Your task to perform on an android device: Search for vegetarian restaurants on Maps Image 0: 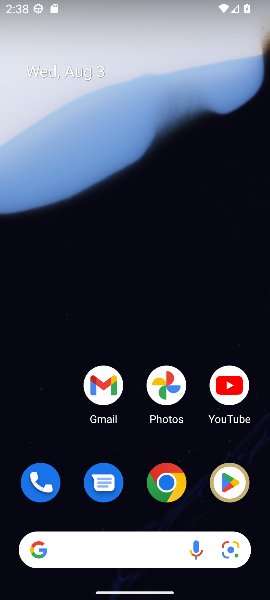
Step 0: drag from (112, 547) to (158, 32)
Your task to perform on an android device: Search for vegetarian restaurants on Maps Image 1: 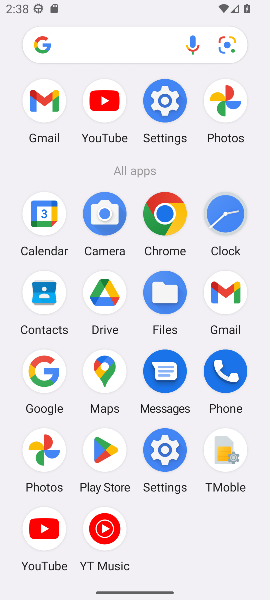
Step 1: drag from (103, 365) to (40, 379)
Your task to perform on an android device: Search for vegetarian restaurants on Maps Image 2: 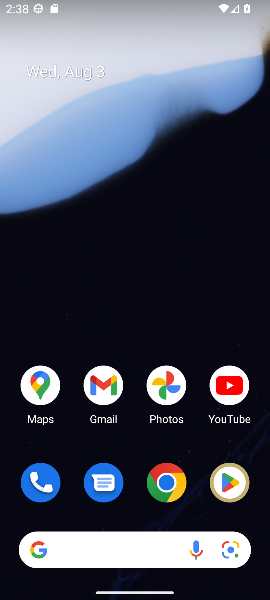
Step 2: click (36, 389)
Your task to perform on an android device: Search for vegetarian restaurants on Maps Image 3: 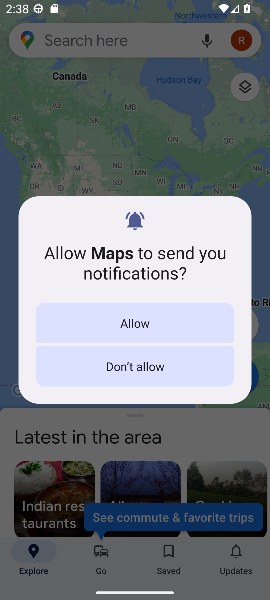
Step 3: click (142, 322)
Your task to perform on an android device: Search for vegetarian restaurants on Maps Image 4: 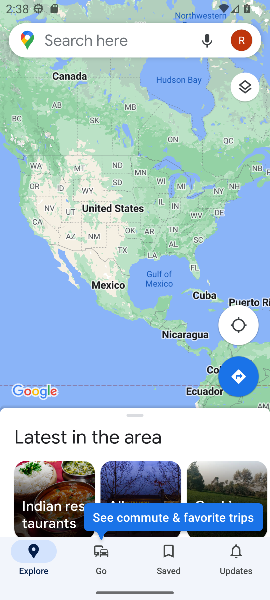
Step 4: click (99, 44)
Your task to perform on an android device: Search for vegetarian restaurants on Maps Image 5: 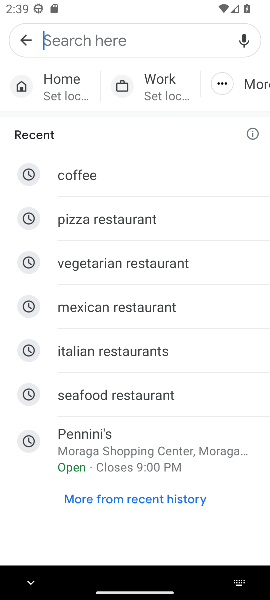
Step 5: click (131, 259)
Your task to perform on an android device: Search for vegetarian restaurants on Maps Image 6: 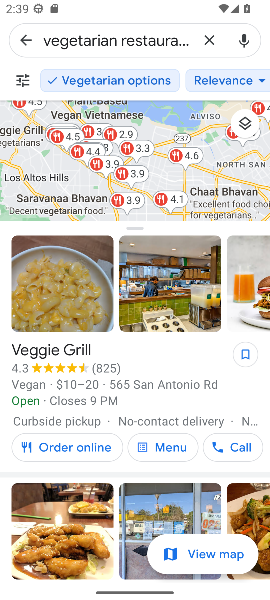
Step 6: task complete